Your task to perform on an android device: open chrome privacy settings Image 0: 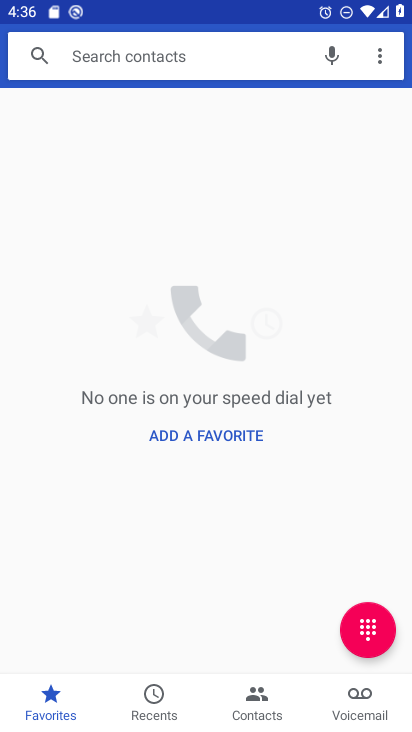
Step 0: press home button
Your task to perform on an android device: open chrome privacy settings Image 1: 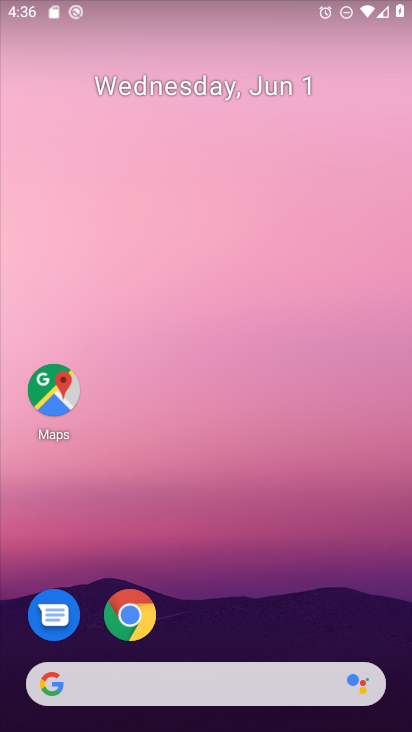
Step 1: click (136, 605)
Your task to perform on an android device: open chrome privacy settings Image 2: 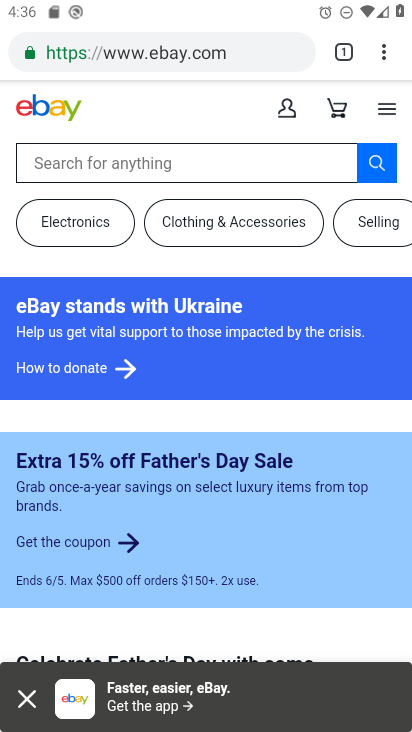
Step 2: click (380, 45)
Your task to perform on an android device: open chrome privacy settings Image 3: 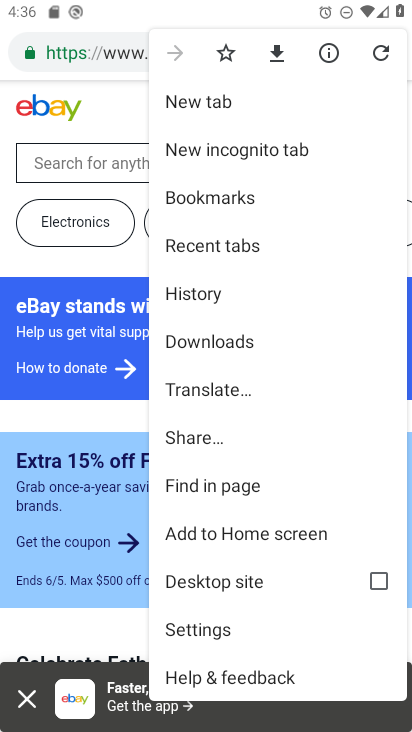
Step 3: click (242, 627)
Your task to perform on an android device: open chrome privacy settings Image 4: 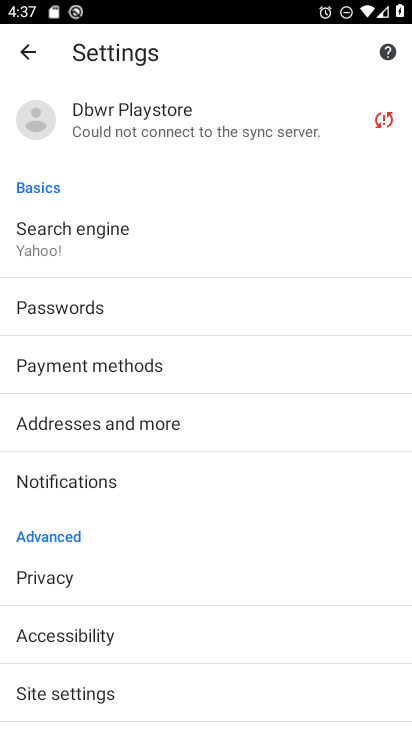
Step 4: click (118, 576)
Your task to perform on an android device: open chrome privacy settings Image 5: 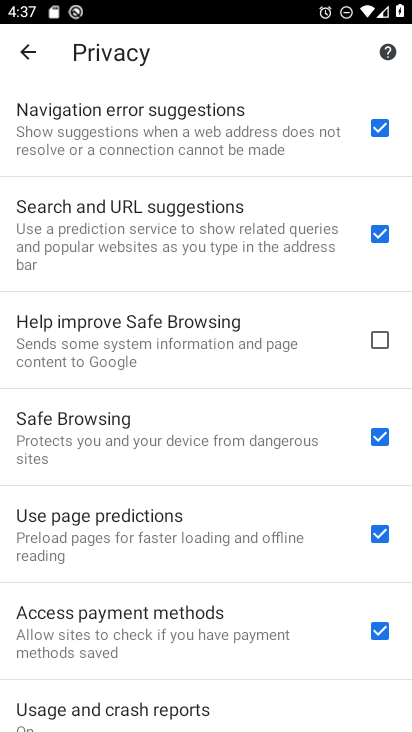
Step 5: task complete